Your task to perform on an android device: add a label to a message in the gmail app Image 0: 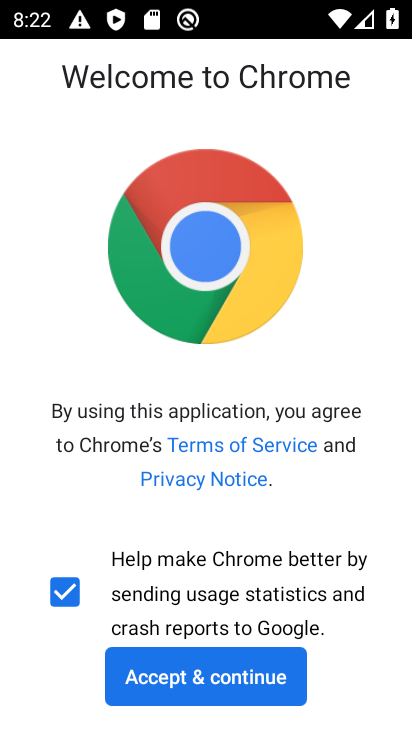
Step 0: press home button
Your task to perform on an android device: add a label to a message in the gmail app Image 1: 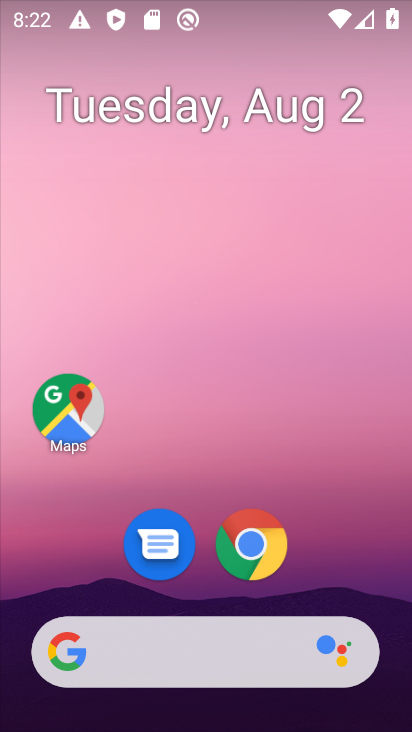
Step 1: drag from (174, 644) to (296, 118)
Your task to perform on an android device: add a label to a message in the gmail app Image 2: 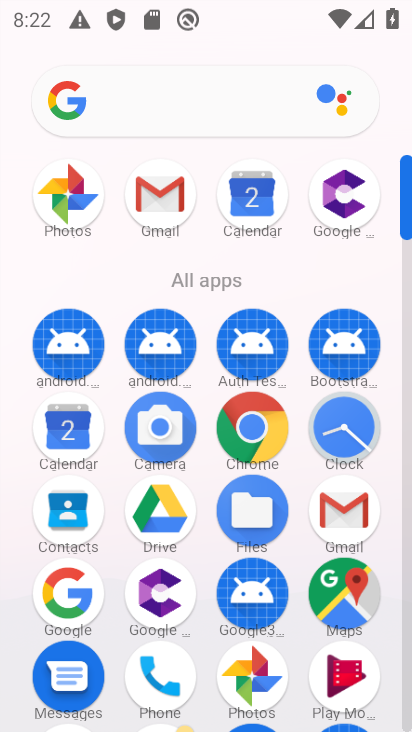
Step 2: click (160, 204)
Your task to perform on an android device: add a label to a message in the gmail app Image 3: 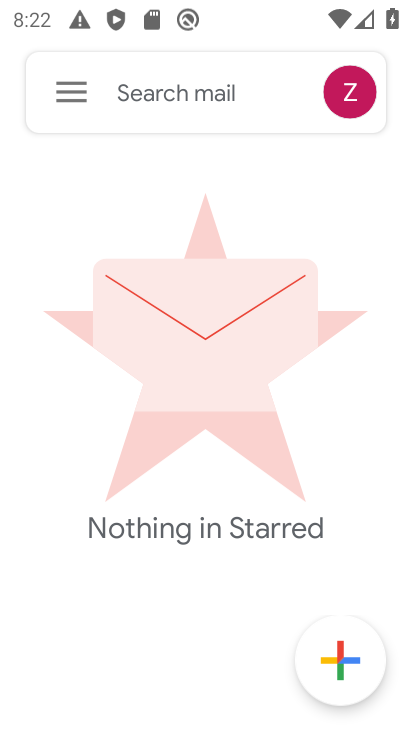
Step 3: click (77, 89)
Your task to perform on an android device: add a label to a message in the gmail app Image 4: 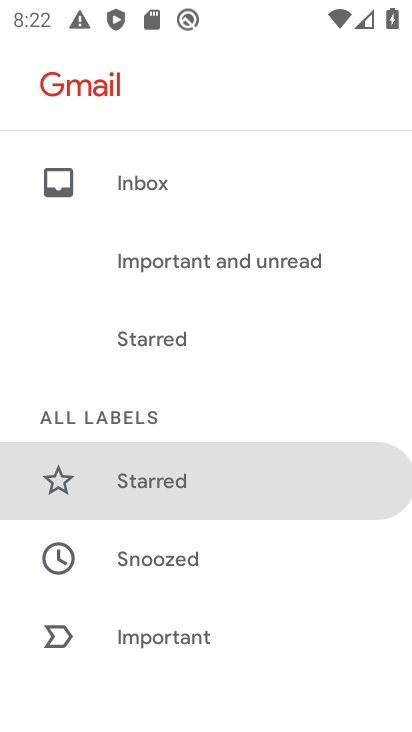
Step 4: drag from (259, 607) to (340, 153)
Your task to perform on an android device: add a label to a message in the gmail app Image 5: 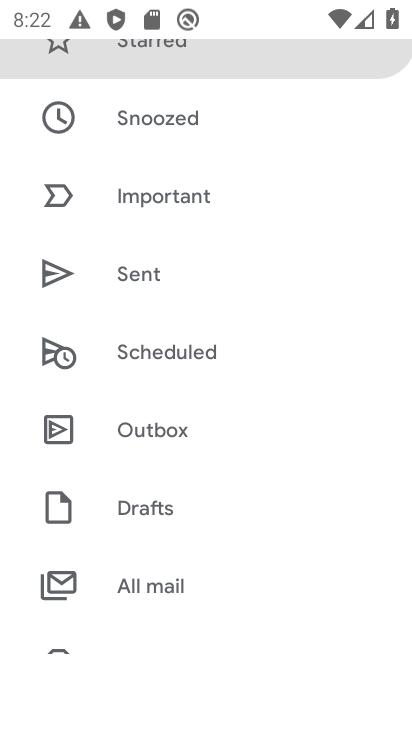
Step 5: click (183, 195)
Your task to perform on an android device: add a label to a message in the gmail app Image 6: 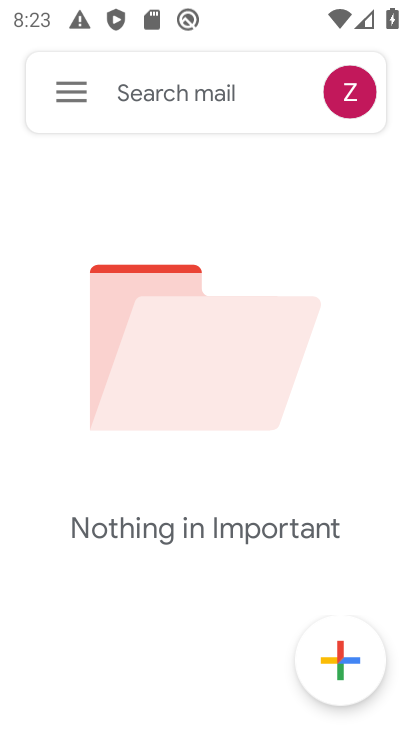
Step 6: click (62, 83)
Your task to perform on an android device: add a label to a message in the gmail app Image 7: 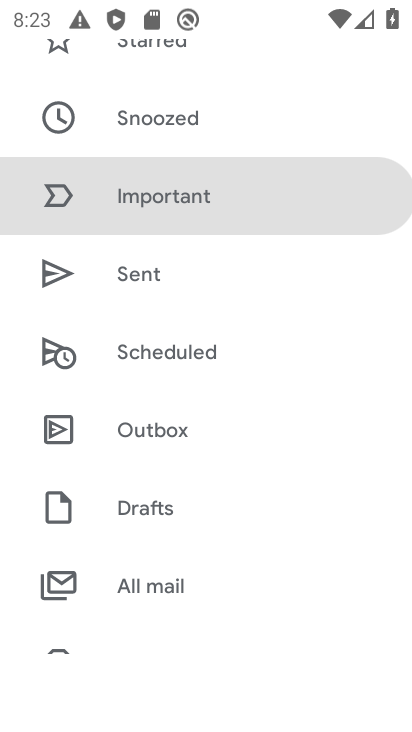
Step 7: drag from (319, 155) to (248, 609)
Your task to perform on an android device: add a label to a message in the gmail app Image 8: 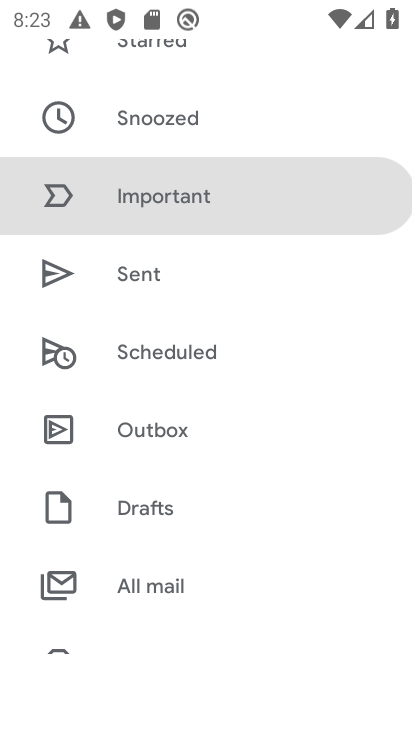
Step 8: drag from (205, 126) to (223, 606)
Your task to perform on an android device: add a label to a message in the gmail app Image 9: 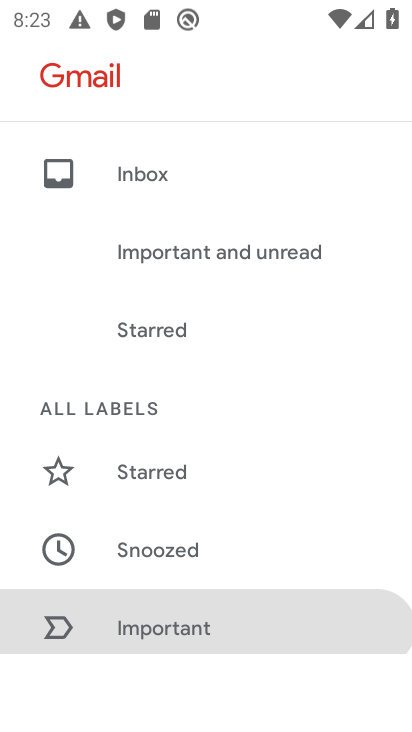
Step 9: click (167, 177)
Your task to perform on an android device: add a label to a message in the gmail app Image 10: 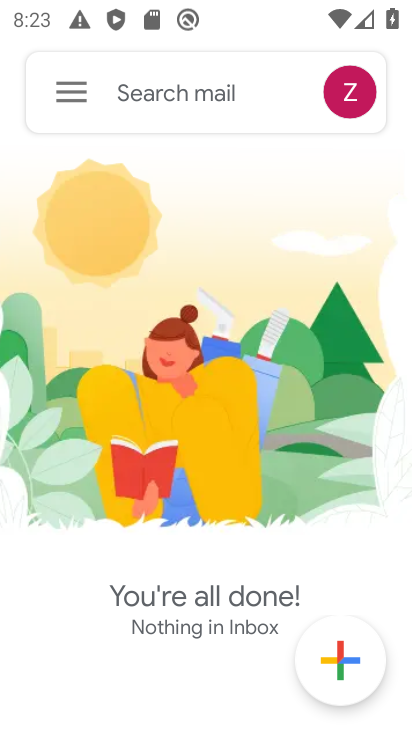
Step 10: task complete